Your task to perform on an android device: turn on javascript in the chrome app Image 0: 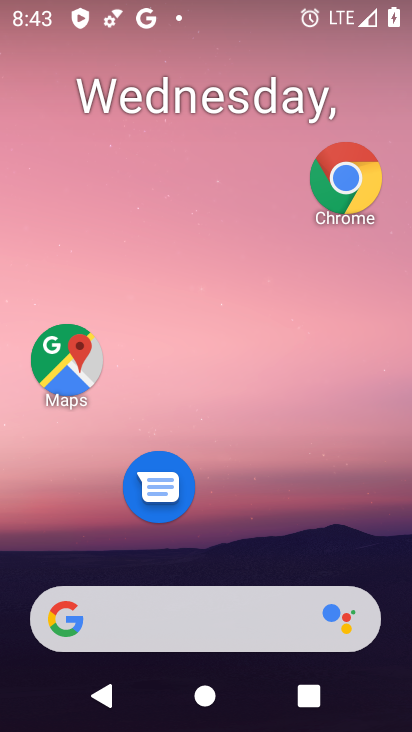
Step 0: drag from (286, 570) to (339, 264)
Your task to perform on an android device: turn on javascript in the chrome app Image 1: 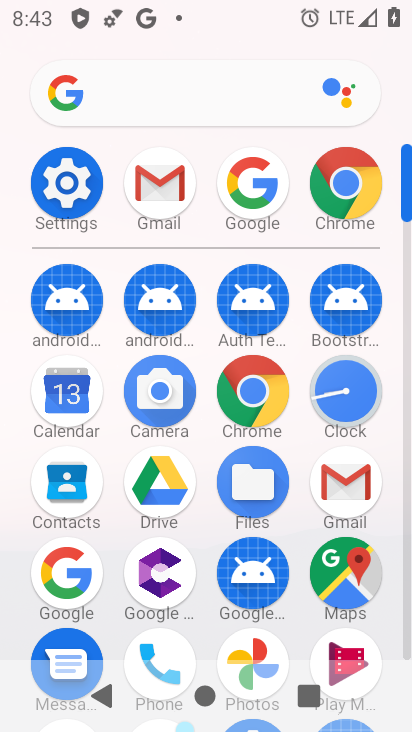
Step 1: click (258, 416)
Your task to perform on an android device: turn on javascript in the chrome app Image 2: 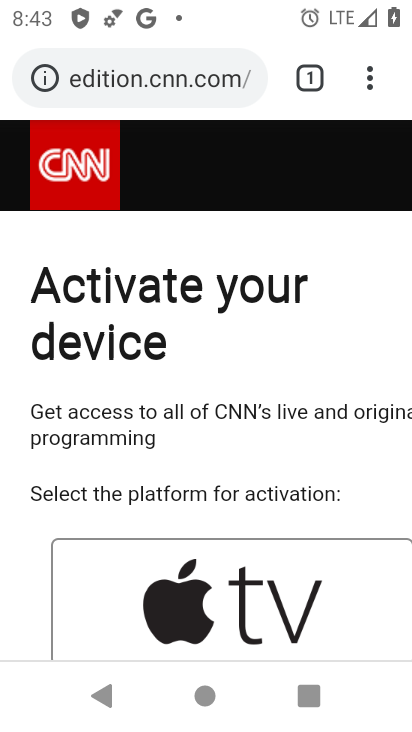
Step 2: click (367, 80)
Your task to perform on an android device: turn on javascript in the chrome app Image 3: 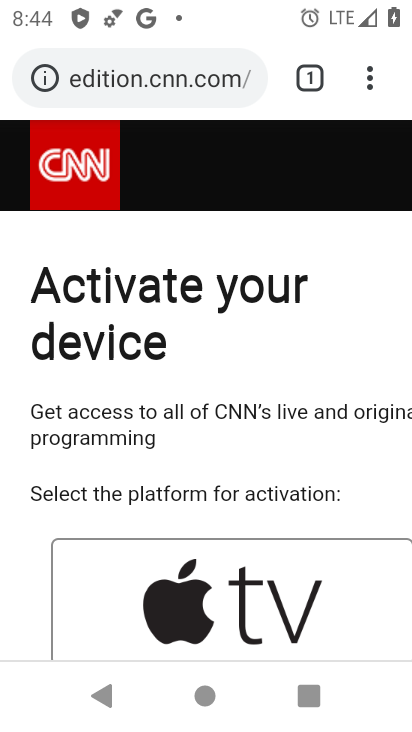
Step 3: click (370, 73)
Your task to perform on an android device: turn on javascript in the chrome app Image 4: 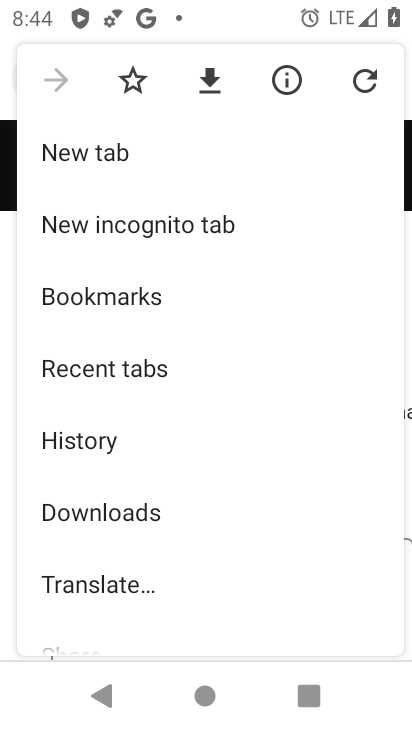
Step 4: drag from (193, 239) to (219, 50)
Your task to perform on an android device: turn on javascript in the chrome app Image 5: 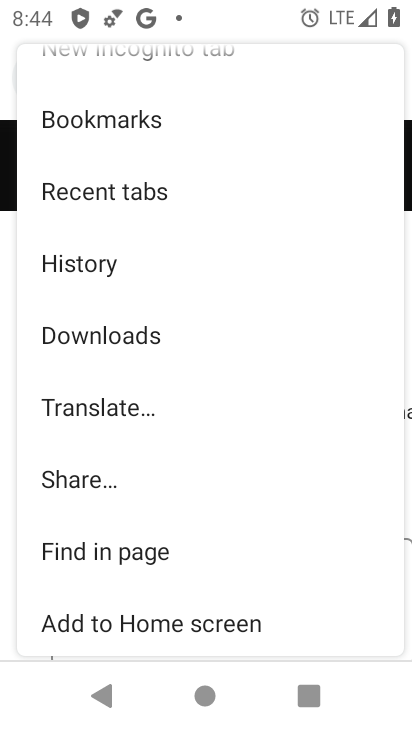
Step 5: drag from (177, 591) to (174, 402)
Your task to perform on an android device: turn on javascript in the chrome app Image 6: 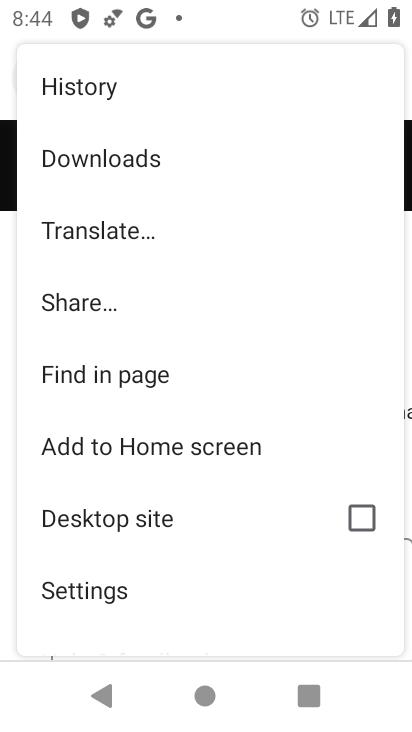
Step 6: click (106, 581)
Your task to perform on an android device: turn on javascript in the chrome app Image 7: 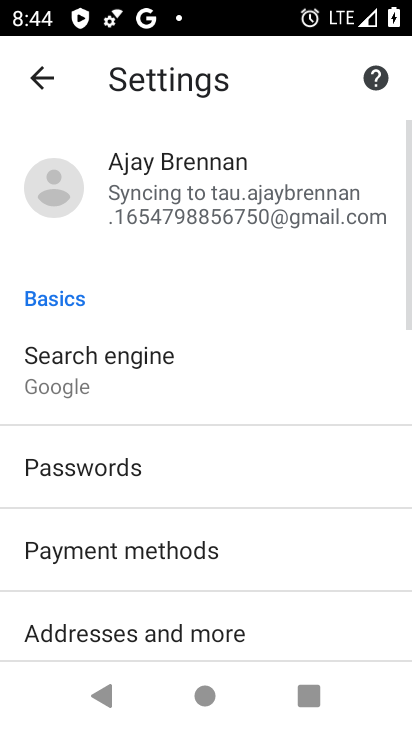
Step 7: drag from (182, 626) to (160, 331)
Your task to perform on an android device: turn on javascript in the chrome app Image 8: 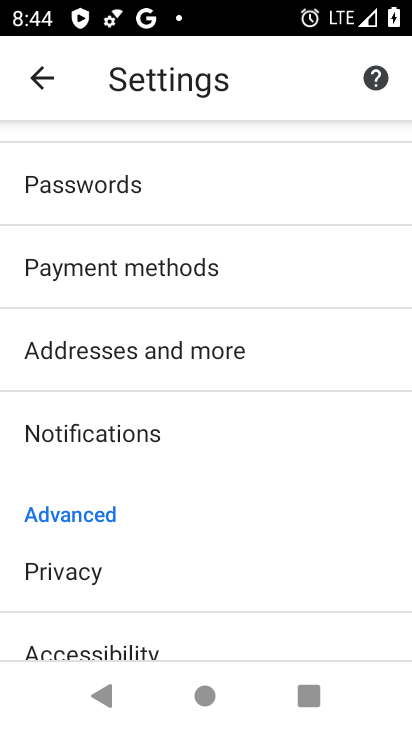
Step 8: drag from (173, 606) to (191, 380)
Your task to perform on an android device: turn on javascript in the chrome app Image 9: 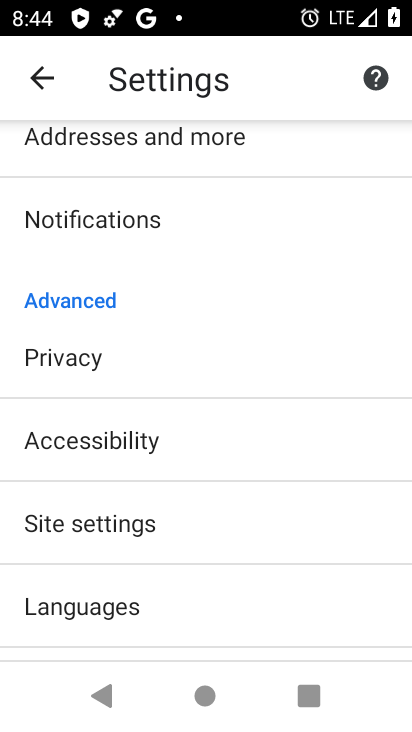
Step 9: click (49, 527)
Your task to perform on an android device: turn on javascript in the chrome app Image 10: 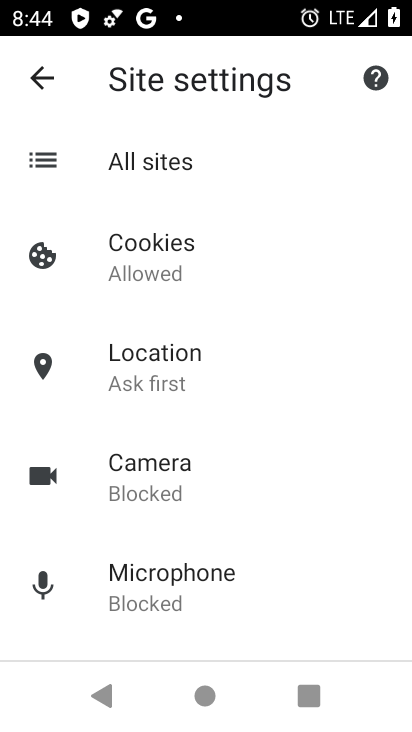
Step 10: drag from (174, 585) to (205, 388)
Your task to perform on an android device: turn on javascript in the chrome app Image 11: 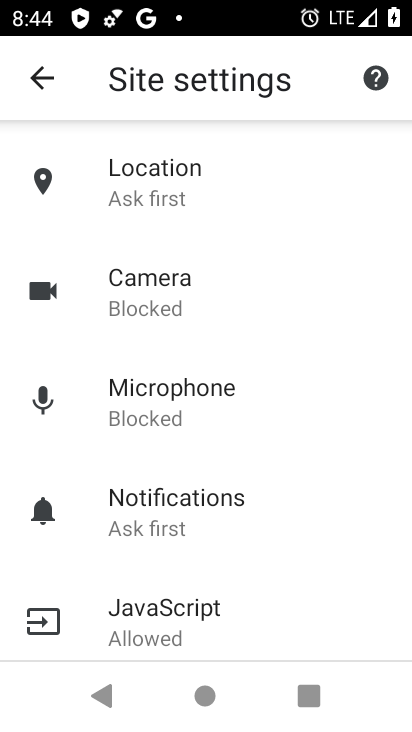
Step 11: click (175, 607)
Your task to perform on an android device: turn on javascript in the chrome app Image 12: 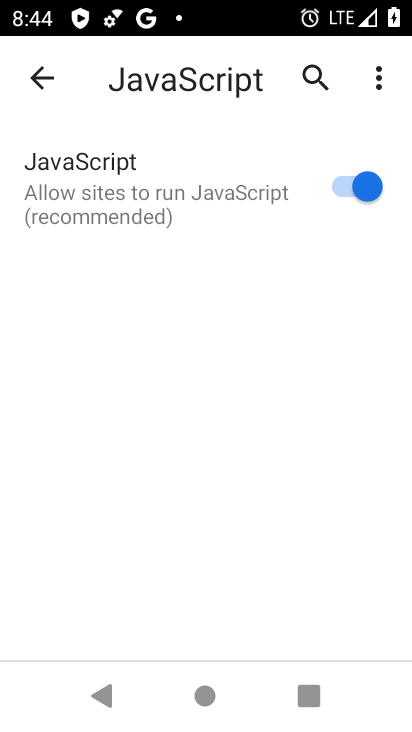
Step 12: task complete